Your task to perform on an android device: Open network settings Image 0: 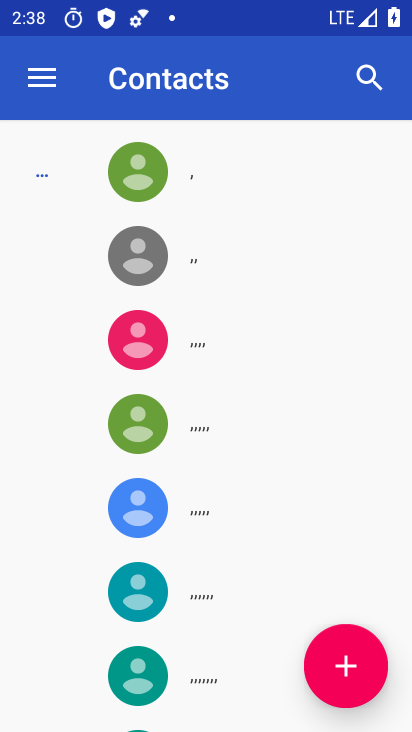
Step 0: press home button
Your task to perform on an android device: Open network settings Image 1: 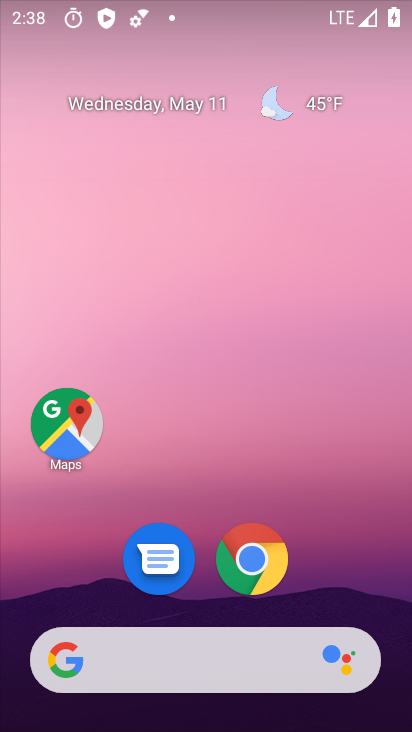
Step 1: drag from (310, 584) to (214, 118)
Your task to perform on an android device: Open network settings Image 2: 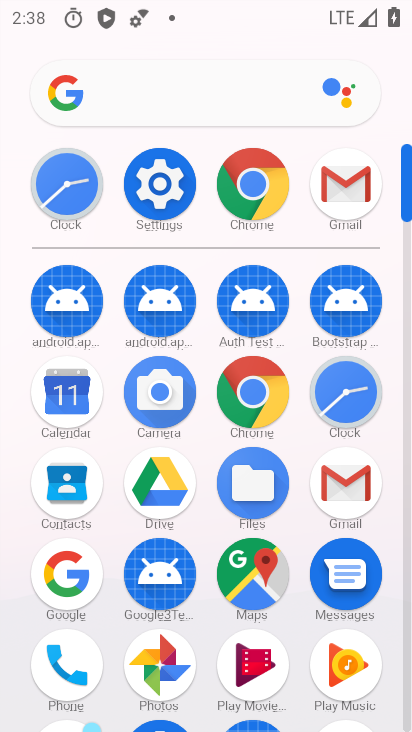
Step 2: click (171, 172)
Your task to perform on an android device: Open network settings Image 3: 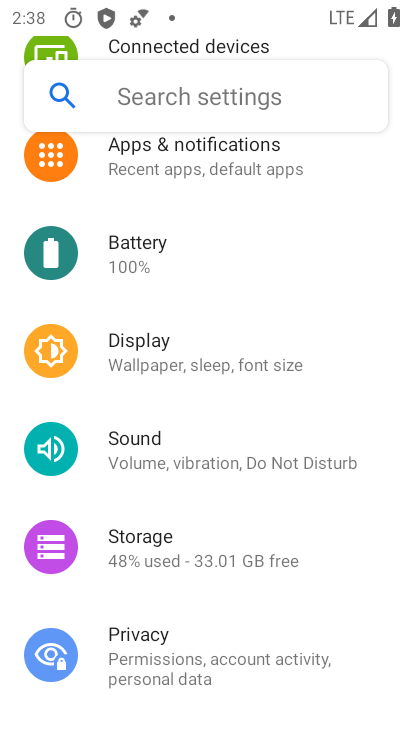
Step 3: drag from (276, 192) to (275, 670)
Your task to perform on an android device: Open network settings Image 4: 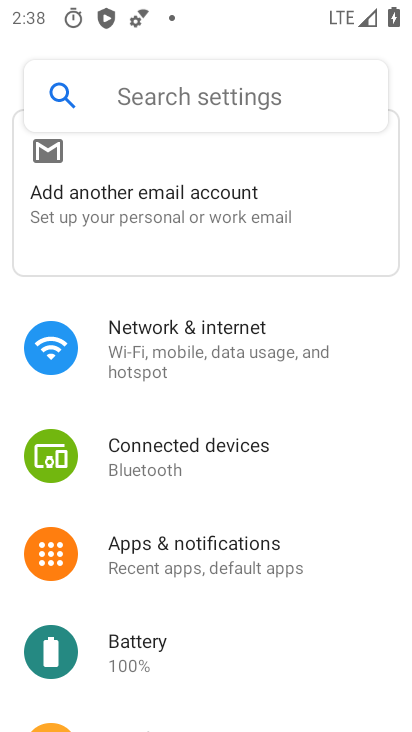
Step 4: click (182, 336)
Your task to perform on an android device: Open network settings Image 5: 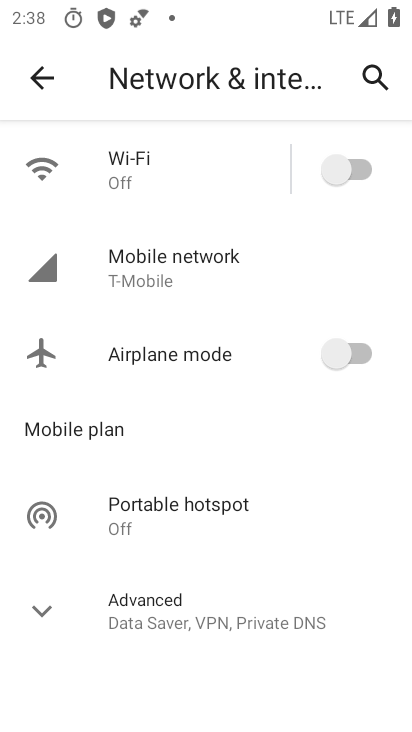
Step 5: task complete